Your task to perform on an android device: snooze an email in the gmail app Image 0: 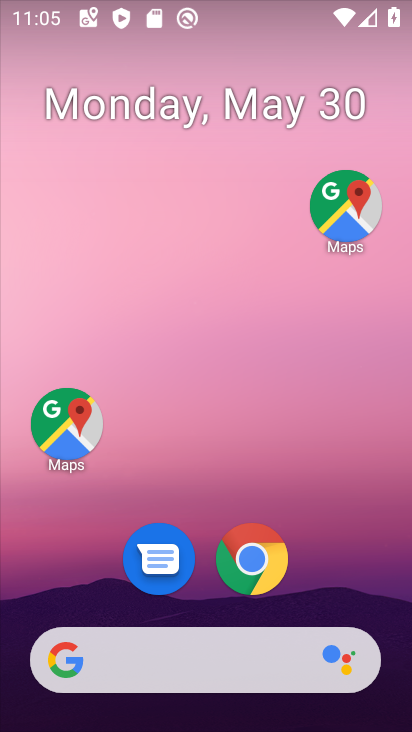
Step 0: drag from (346, 556) to (210, 63)
Your task to perform on an android device: snooze an email in the gmail app Image 1: 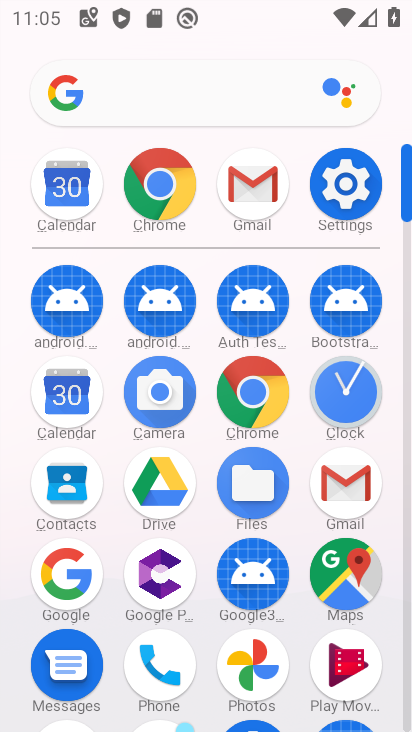
Step 1: click (250, 208)
Your task to perform on an android device: snooze an email in the gmail app Image 2: 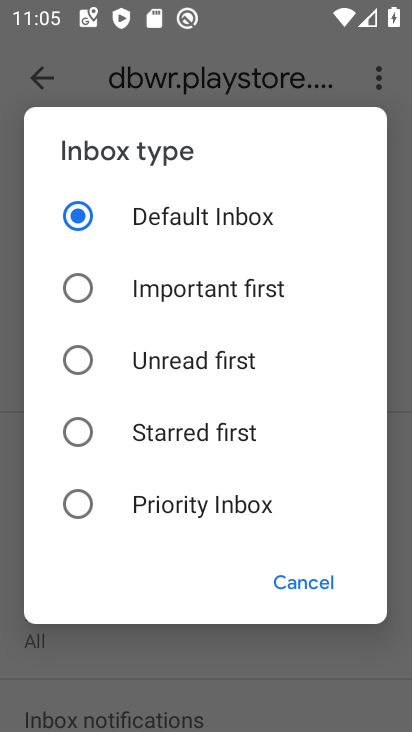
Step 2: click (313, 574)
Your task to perform on an android device: snooze an email in the gmail app Image 3: 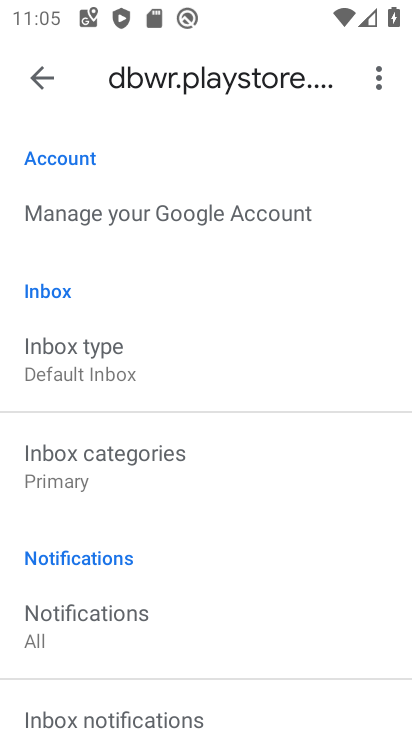
Step 3: click (43, 70)
Your task to perform on an android device: snooze an email in the gmail app Image 4: 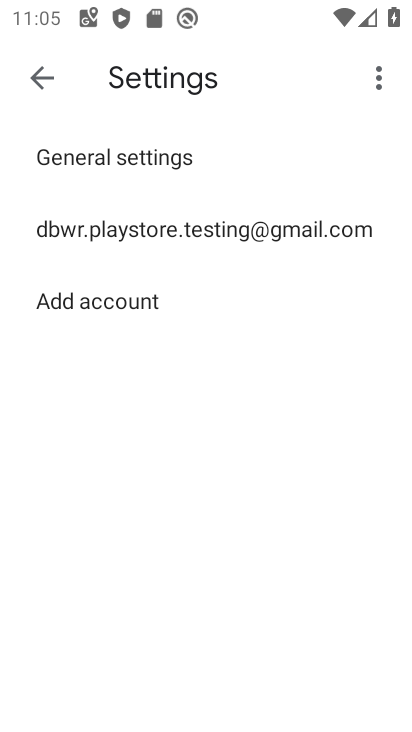
Step 4: click (37, 65)
Your task to perform on an android device: snooze an email in the gmail app Image 5: 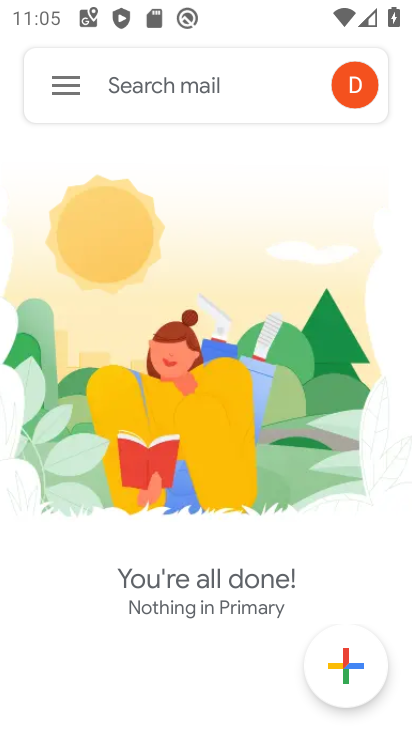
Step 5: click (72, 79)
Your task to perform on an android device: snooze an email in the gmail app Image 6: 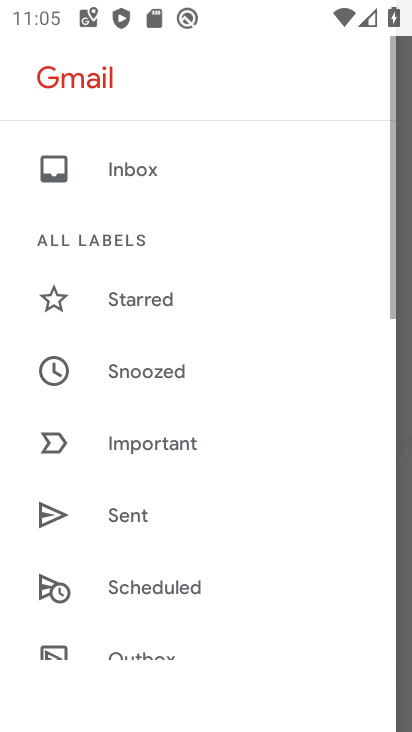
Step 6: drag from (184, 519) to (268, 80)
Your task to perform on an android device: snooze an email in the gmail app Image 7: 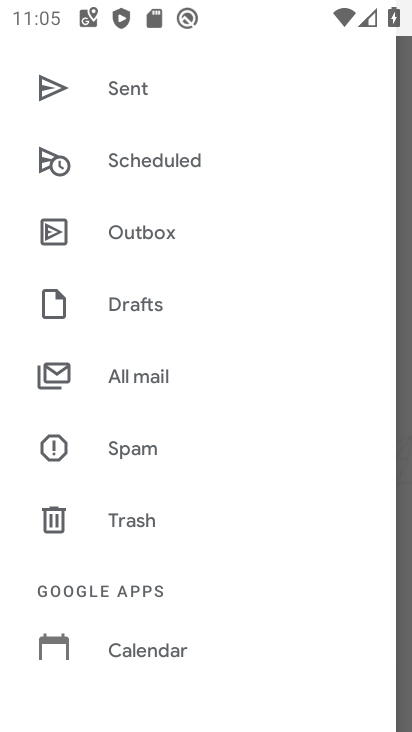
Step 7: click (165, 385)
Your task to perform on an android device: snooze an email in the gmail app Image 8: 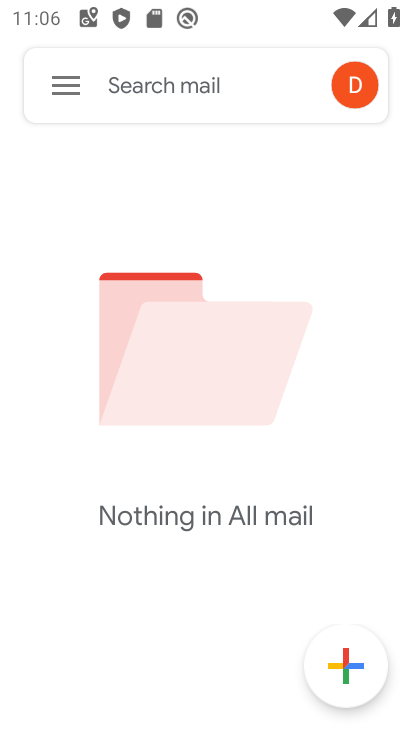
Step 8: task complete